Your task to perform on an android device: Open Youtube and go to "Your channel" Image 0: 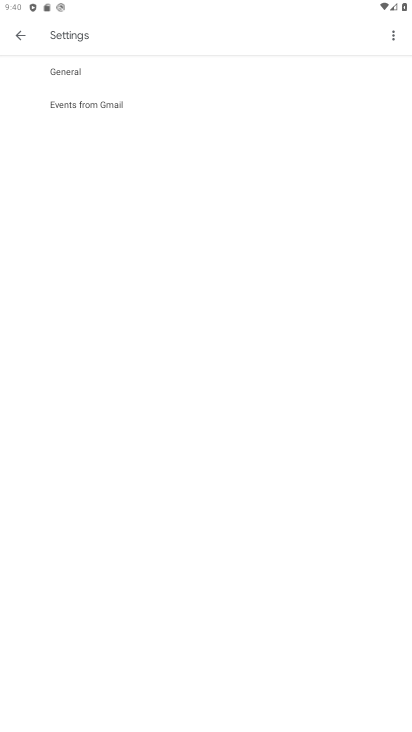
Step 0: press home button
Your task to perform on an android device: Open Youtube and go to "Your channel" Image 1: 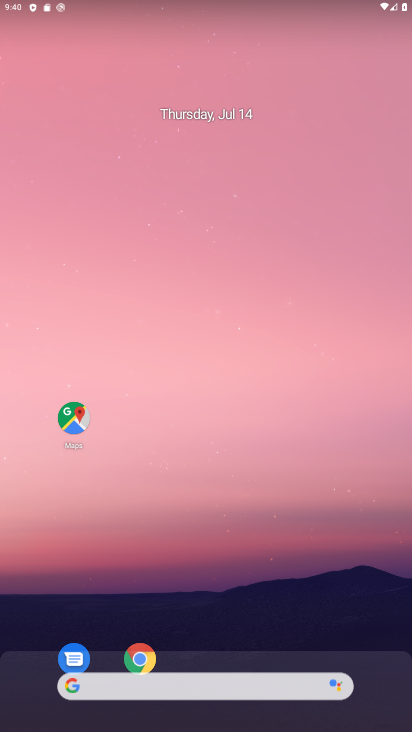
Step 1: drag from (187, 665) to (189, 190)
Your task to perform on an android device: Open Youtube and go to "Your channel" Image 2: 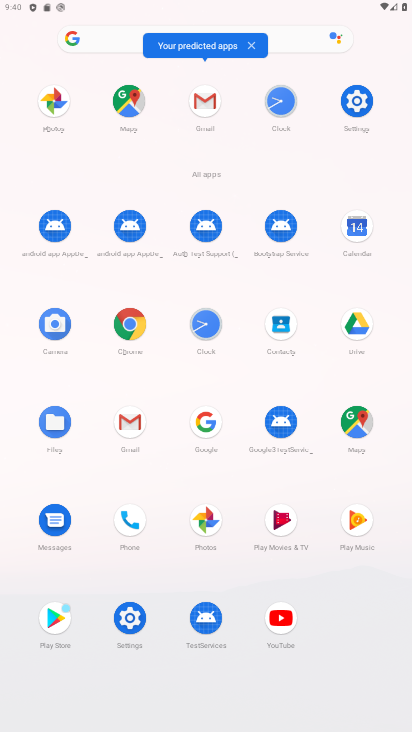
Step 2: click (271, 632)
Your task to perform on an android device: Open Youtube and go to "Your channel" Image 3: 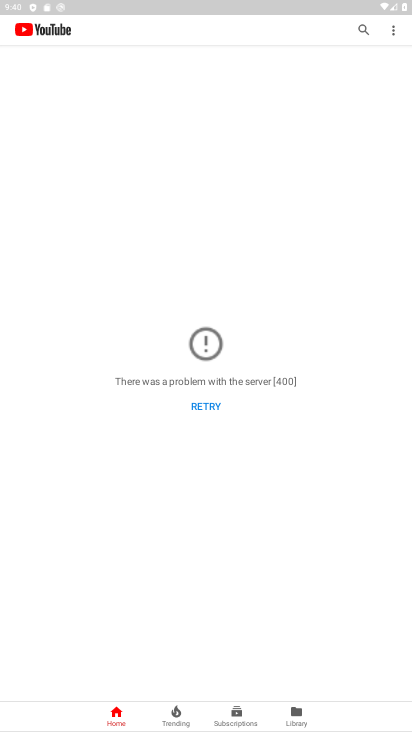
Step 3: click (301, 711)
Your task to perform on an android device: Open Youtube and go to "Your channel" Image 4: 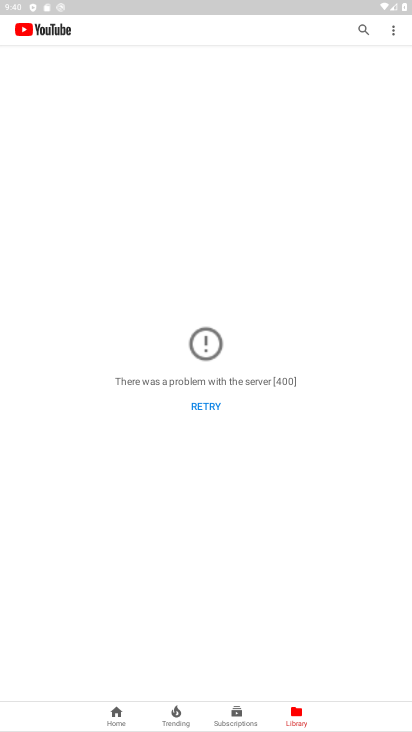
Step 4: task complete